Your task to perform on an android device: remove spam from my inbox in the gmail app Image 0: 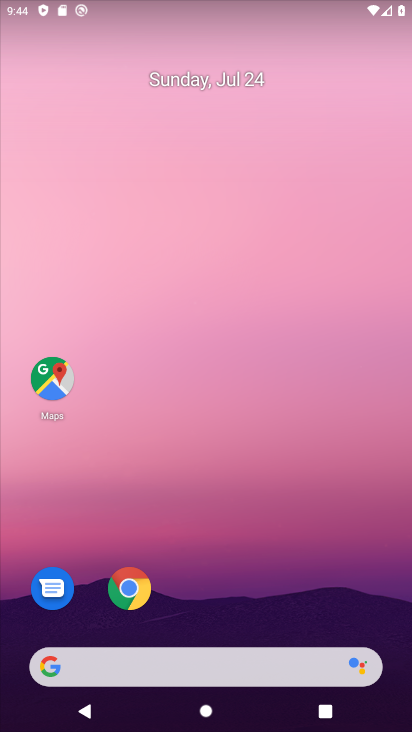
Step 0: click (247, 314)
Your task to perform on an android device: remove spam from my inbox in the gmail app Image 1: 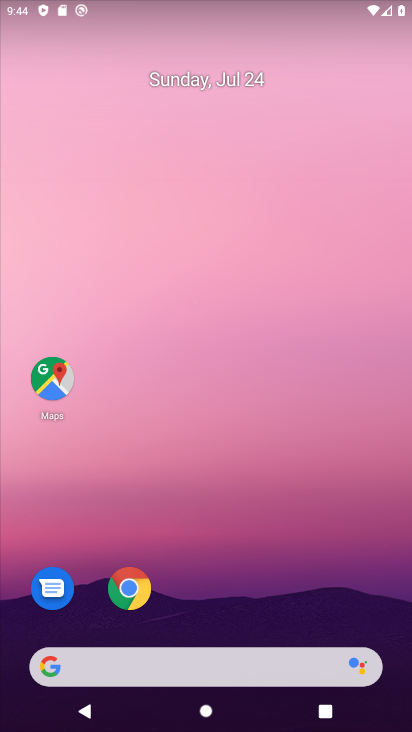
Step 1: drag from (256, 454) to (255, 239)
Your task to perform on an android device: remove spam from my inbox in the gmail app Image 2: 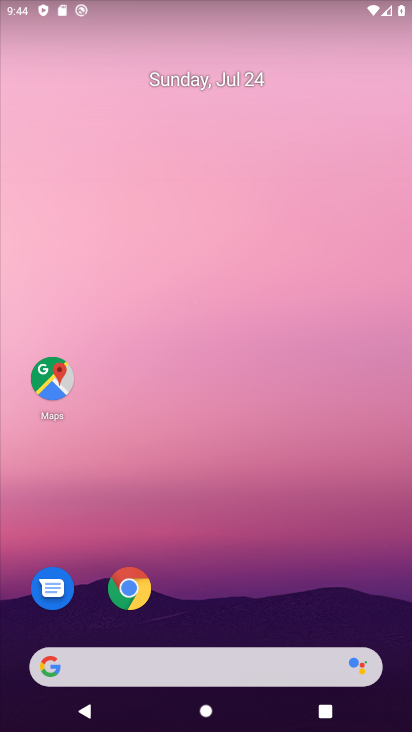
Step 2: drag from (254, 609) to (280, 86)
Your task to perform on an android device: remove spam from my inbox in the gmail app Image 3: 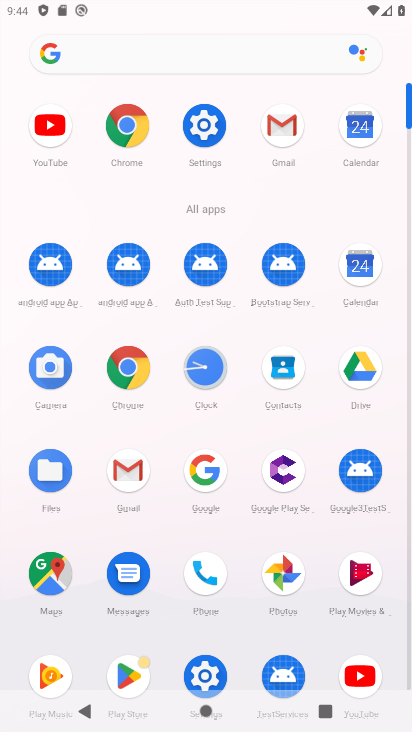
Step 3: click (128, 461)
Your task to perform on an android device: remove spam from my inbox in the gmail app Image 4: 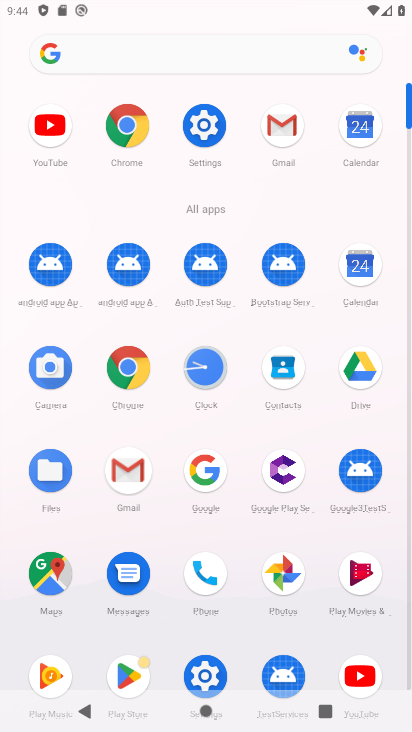
Step 4: click (132, 464)
Your task to perform on an android device: remove spam from my inbox in the gmail app Image 5: 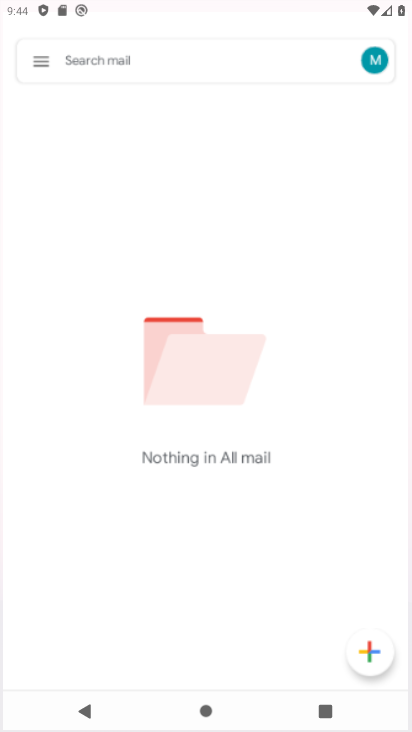
Step 5: click (138, 462)
Your task to perform on an android device: remove spam from my inbox in the gmail app Image 6: 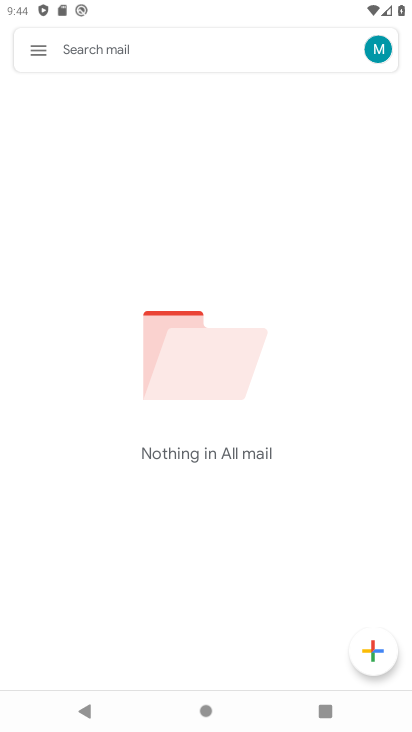
Step 6: click (48, 46)
Your task to perform on an android device: remove spam from my inbox in the gmail app Image 7: 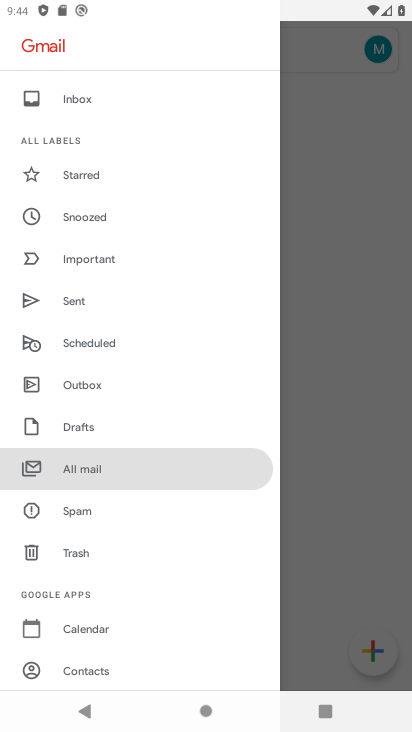
Step 7: click (92, 467)
Your task to perform on an android device: remove spam from my inbox in the gmail app Image 8: 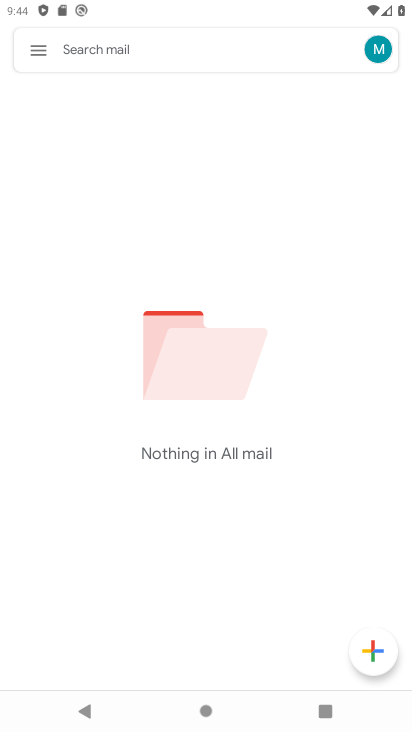
Step 8: click (43, 40)
Your task to perform on an android device: remove spam from my inbox in the gmail app Image 9: 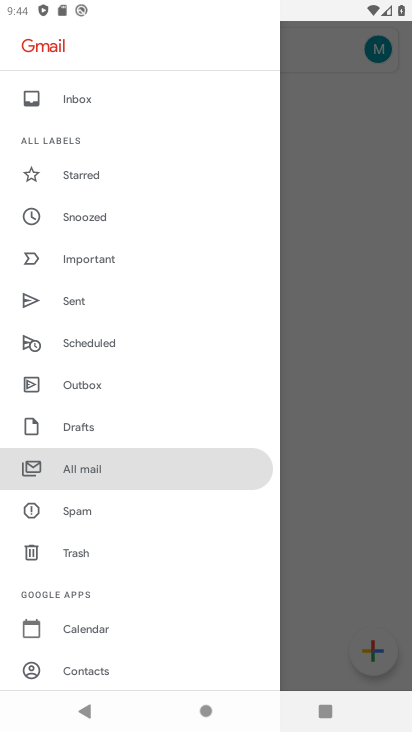
Step 9: click (85, 516)
Your task to perform on an android device: remove spam from my inbox in the gmail app Image 10: 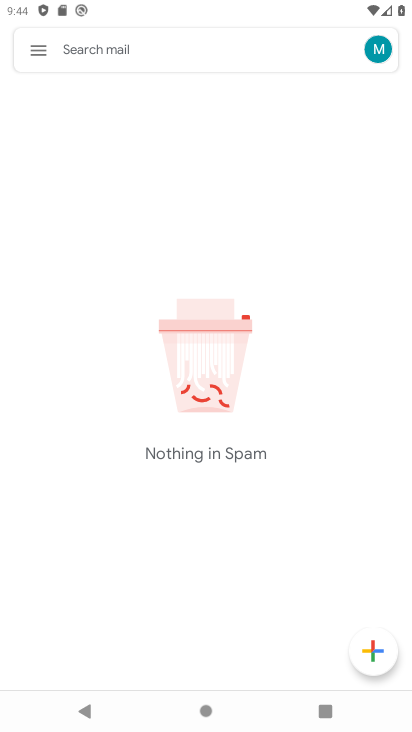
Step 10: task complete